Your task to perform on an android device: change the clock display to analog Image 0: 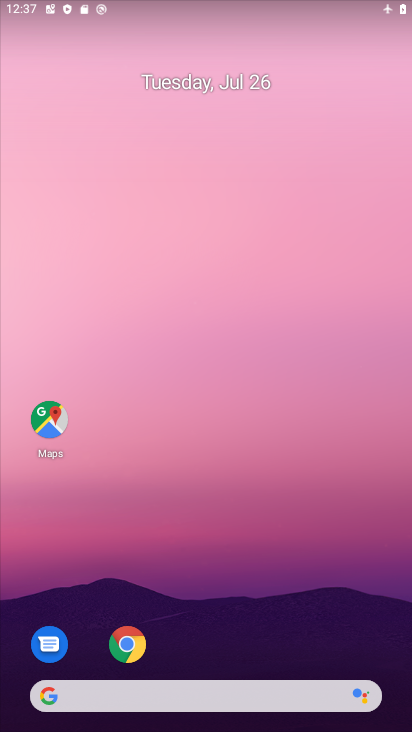
Step 0: drag from (243, 650) to (310, 108)
Your task to perform on an android device: change the clock display to analog Image 1: 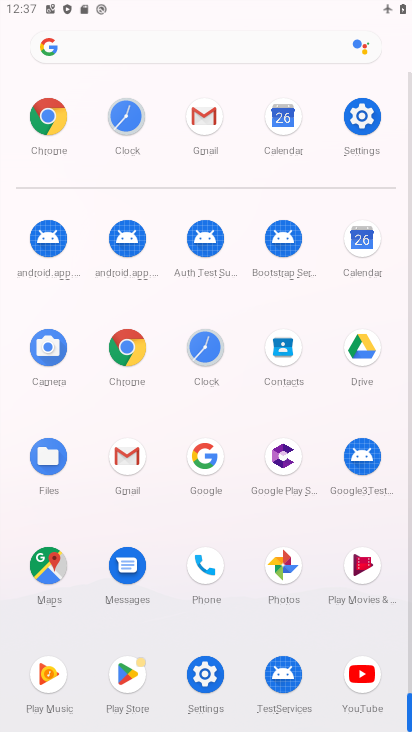
Step 1: click (215, 360)
Your task to perform on an android device: change the clock display to analog Image 2: 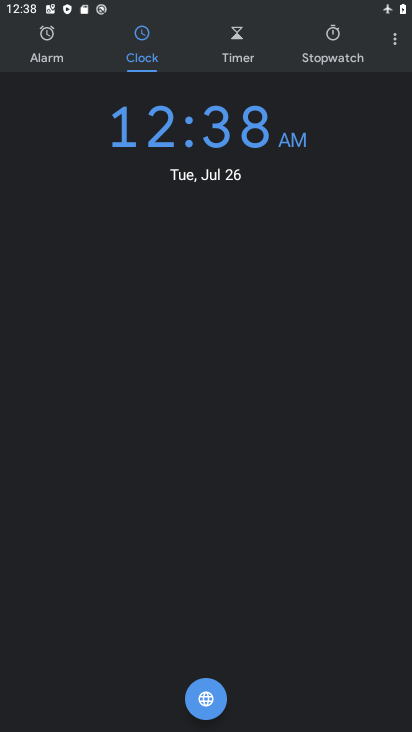
Step 2: click (393, 46)
Your task to perform on an android device: change the clock display to analog Image 3: 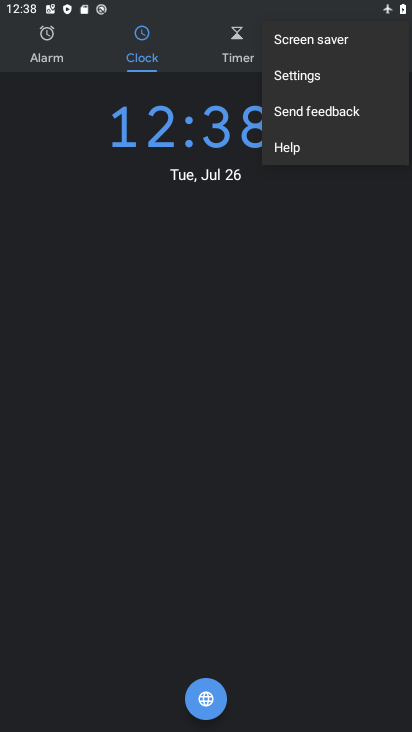
Step 3: click (295, 77)
Your task to perform on an android device: change the clock display to analog Image 4: 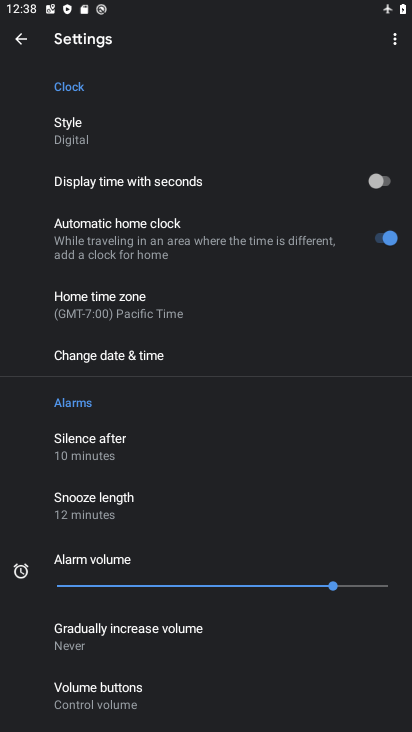
Step 4: click (113, 129)
Your task to perform on an android device: change the clock display to analog Image 5: 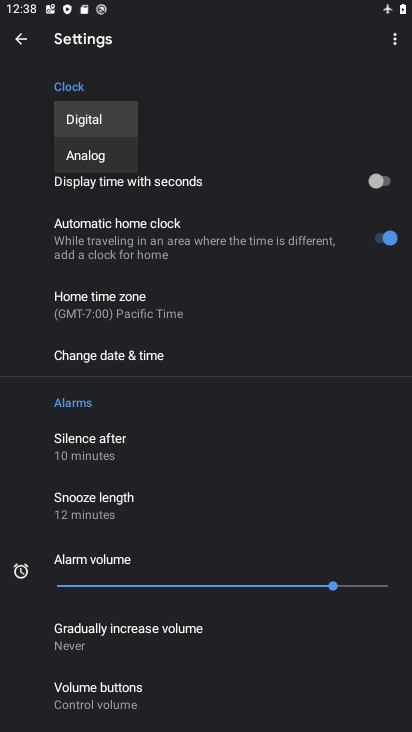
Step 5: click (116, 165)
Your task to perform on an android device: change the clock display to analog Image 6: 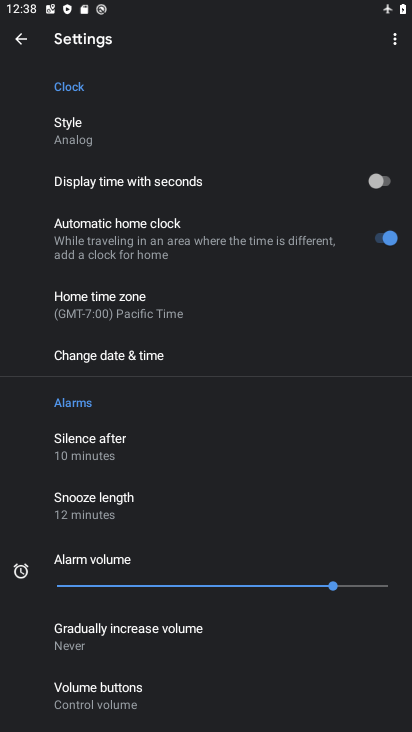
Step 6: task complete